Your task to perform on an android device: set an alarm Image 0: 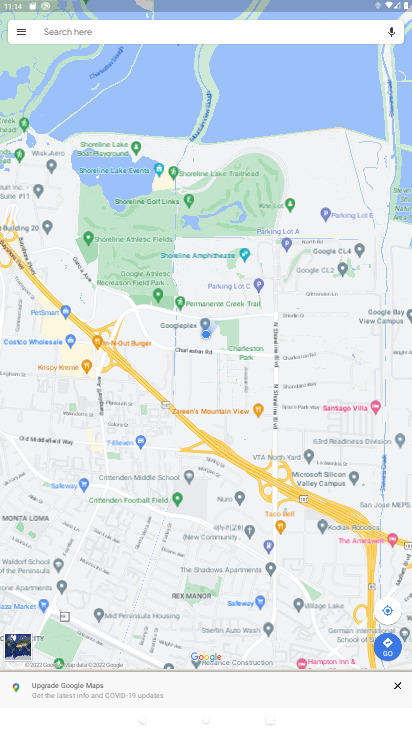
Step 0: press home button
Your task to perform on an android device: set an alarm Image 1: 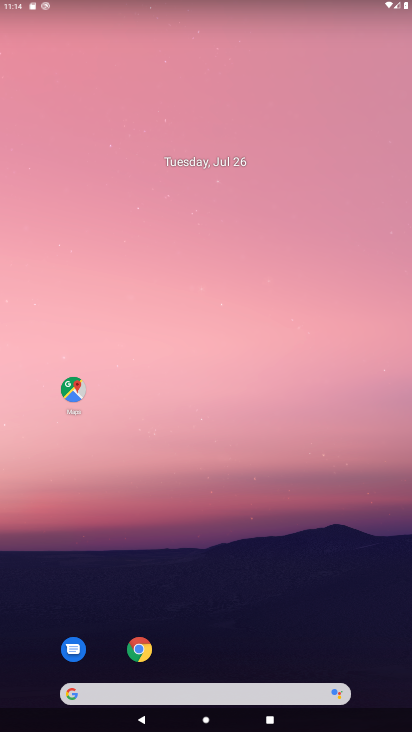
Step 1: drag from (251, 616) to (305, 26)
Your task to perform on an android device: set an alarm Image 2: 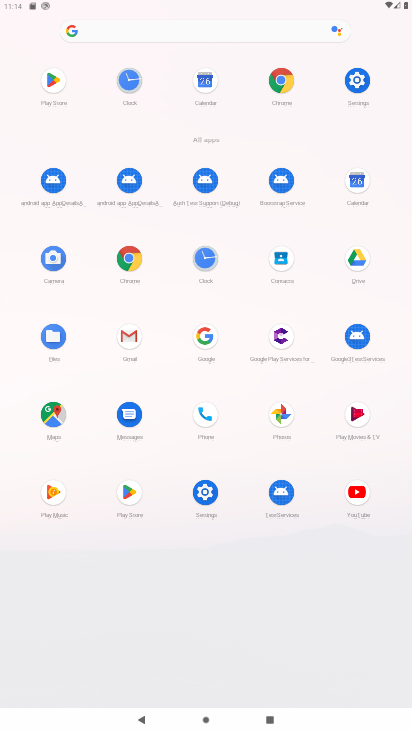
Step 2: click (201, 258)
Your task to perform on an android device: set an alarm Image 3: 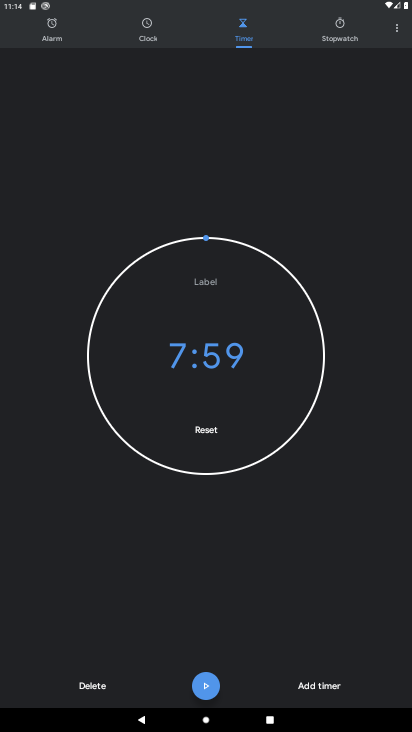
Step 3: click (51, 36)
Your task to perform on an android device: set an alarm Image 4: 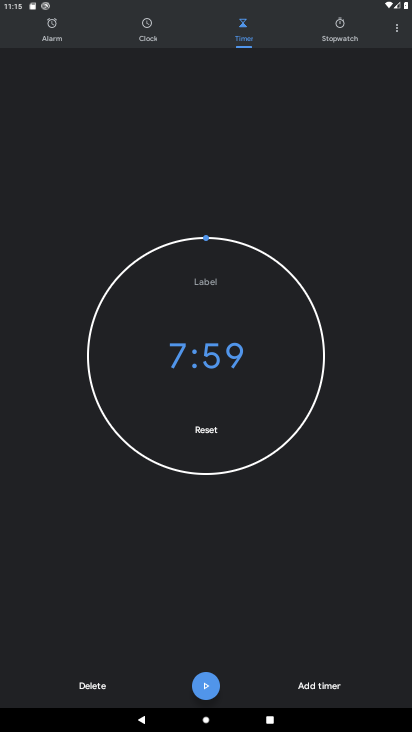
Step 4: click (71, 21)
Your task to perform on an android device: set an alarm Image 5: 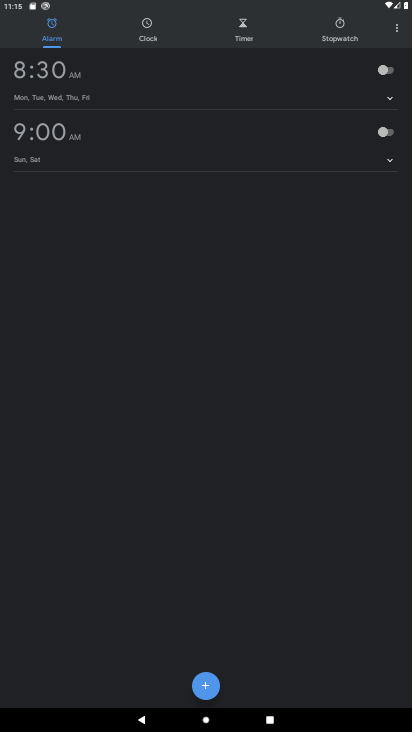
Step 5: click (391, 73)
Your task to perform on an android device: set an alarm Image 6: 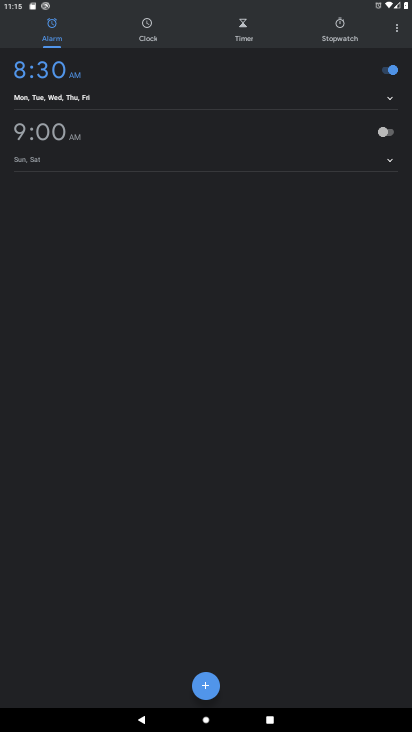
Step 6: task complete